Your task to perform on an android device: Go to Yahoo.com Image 0: 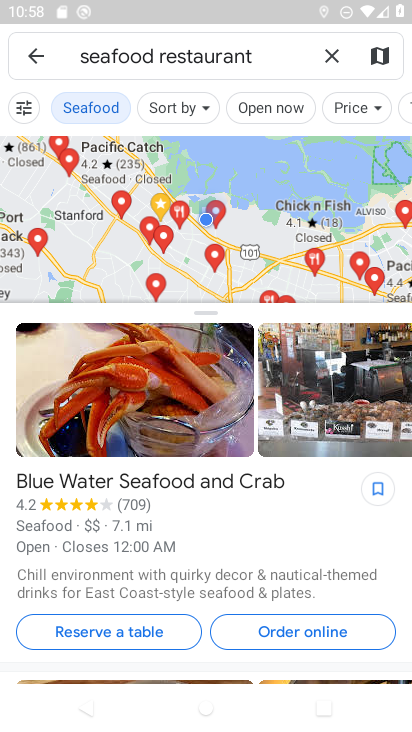
Step 0: press home button
Your task to perform on an android device: Go to Yahoo.com Image 1: 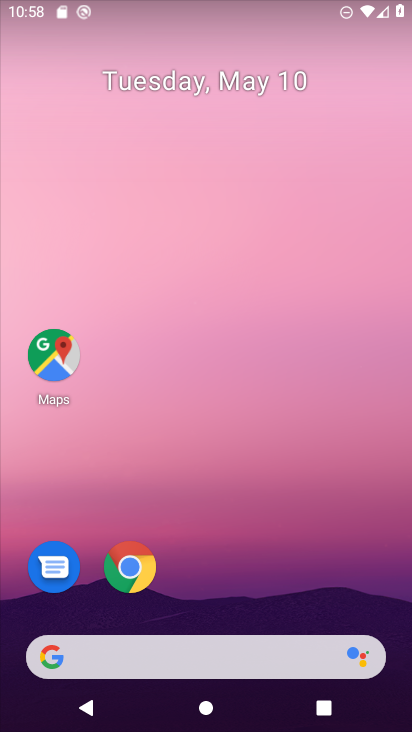
Step 1: drag from (196, 606) to (191, 197)
Your task to perform on an android device: Go to Yahoo.com Image 2: 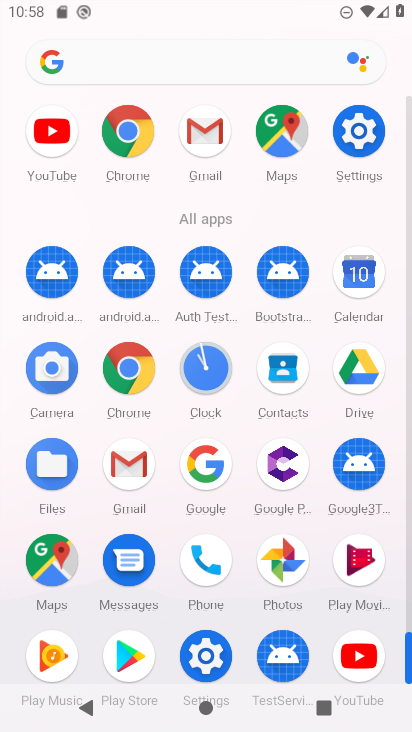
Step 2: click (137, 144)
Your task to perform on an android device: Go to Yahoo.com Image 3: 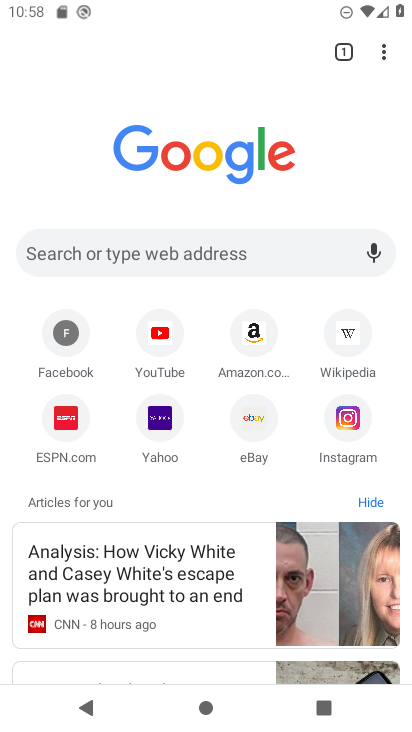
Step 3: click (194, 256)
Your task to perform on an android device: Go to Yahoo.com Image 4: 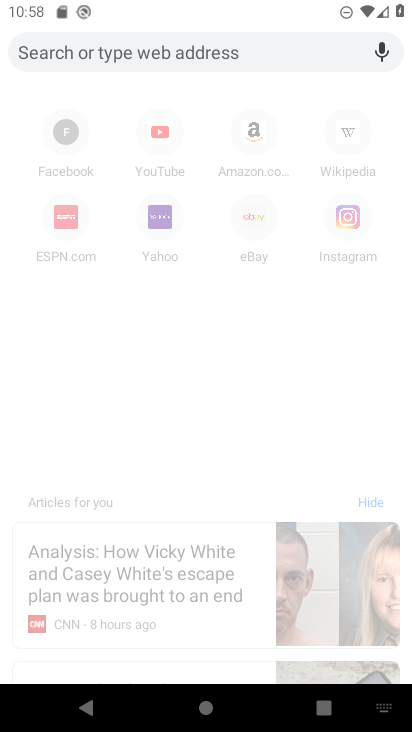
Step 4: type "yahoo.com"
Your task to perform on an android device: Go to Yahoo.com Image 5: 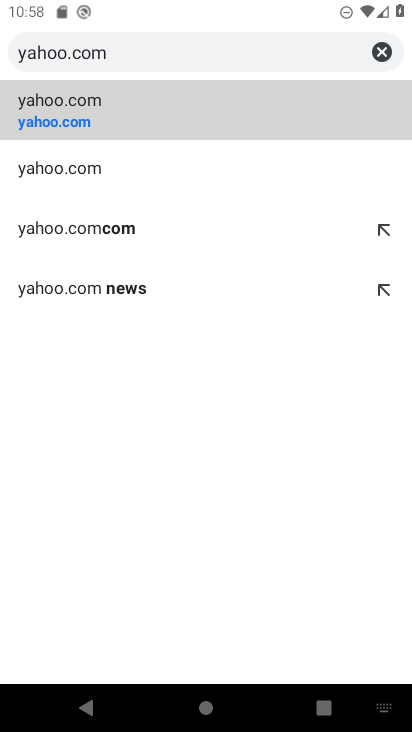
Step 5: click (60, 127)
Your task to perform on an android device: Go to Yahoo.com Image 6: 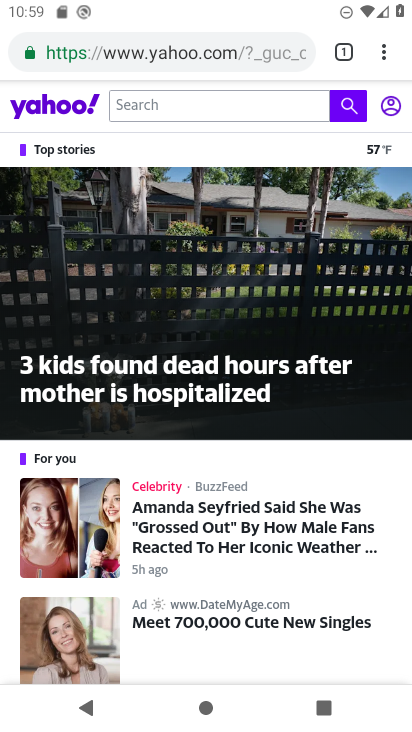
Step 6: task complete